Your task to perform on an android device: open app "Adobe Acrobat Reader" (install if not already installed) and enter user name: "nondescriptly@inbox.com" and password: "negating" Image 0: 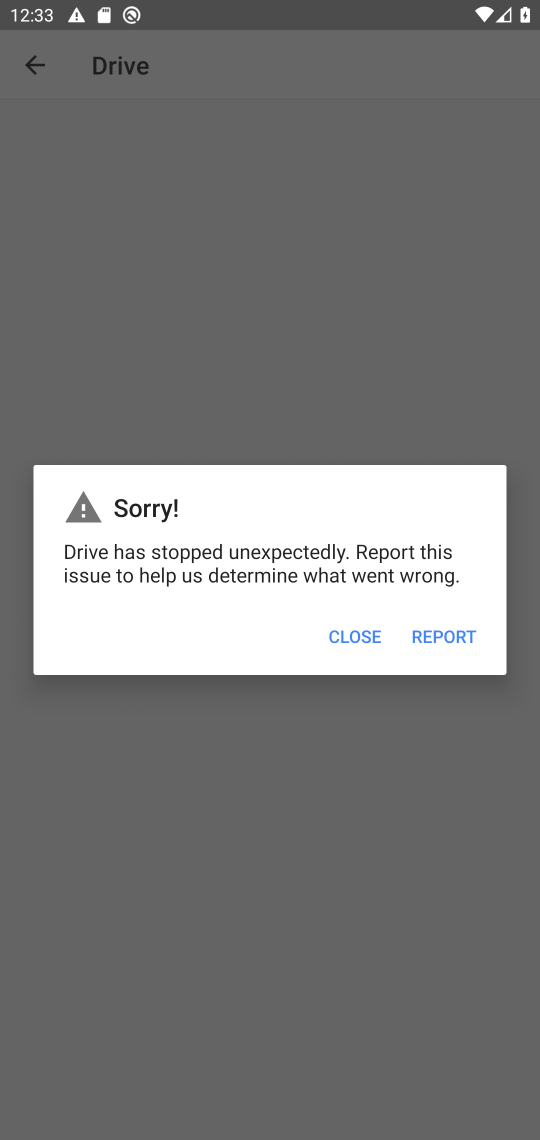
Step 0: press home button
Your task to perform on an android device: open app "Adobe Acrobat Reader" (install if not already installed) and enter user name: "nondescriptly@inbox.com" and password: "negating" Image 1: 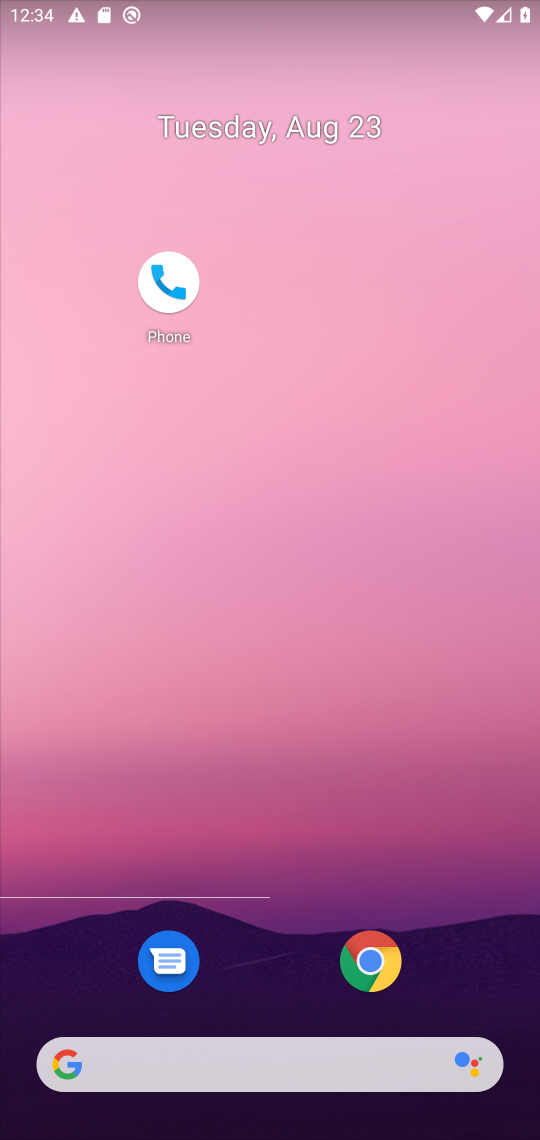
Step 1: drag from (247, 1000) to (404, 14)
Your task to perform on an android device: open app "Adobe Acrobat Reader" (install if not already installed) and enter user name: "nondescriptly@inbox.com" and password: "negating" Image 2: 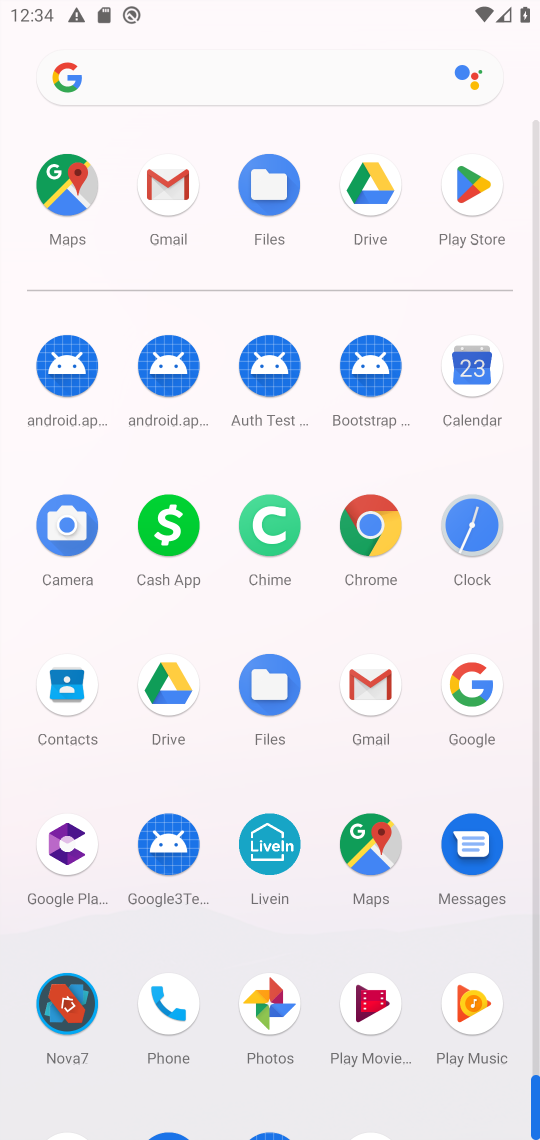
Step 2: click (465, 192)
Your task to perform on an android device: open app "Adobe Acrobat Reader" (install if not already installed) and enter user name: "nondescriptly@inbox.com" and password: "negating" Image 3: 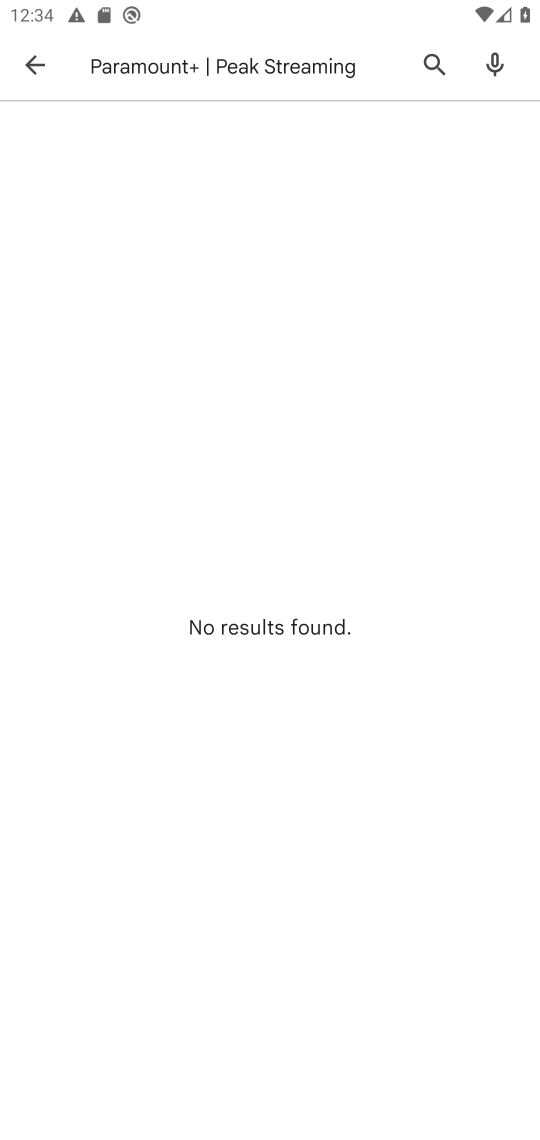
Step 3: click (455, 59)
Your task to perform on an android device: open app "Adobe Acrobat Reader" (install if not already installed) and enter user name: "nondescriptly@inbox.com" and password: "negating" Image 4: 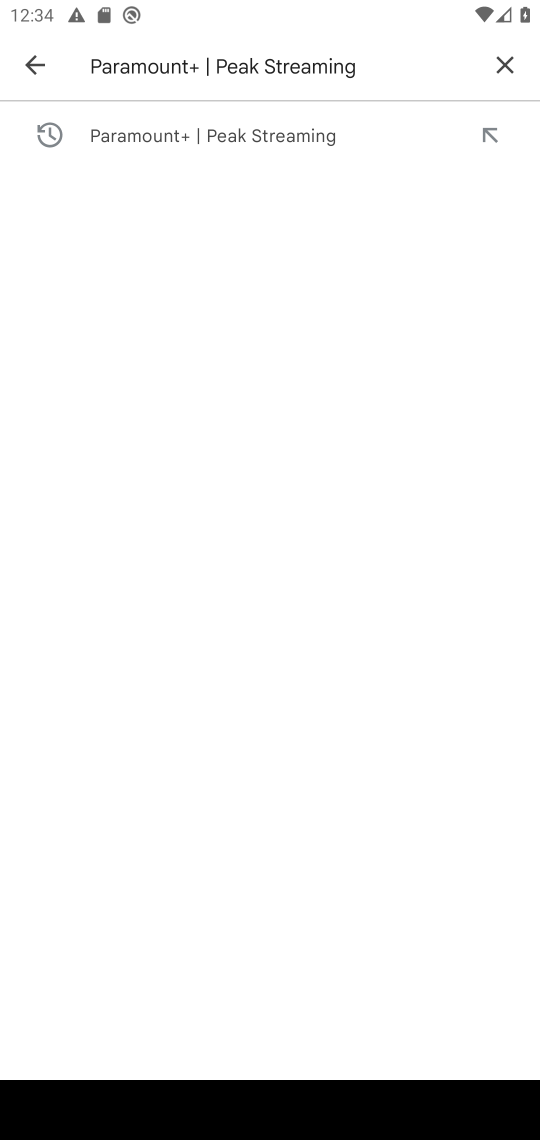
Step 4: click (493, 60)
Your task to perform on an android device: open app "Adobe Acrobat Reader" (install if not already installed) and enter user name: "nondescriptly@inbox.com" and password: "negating" Image 5: 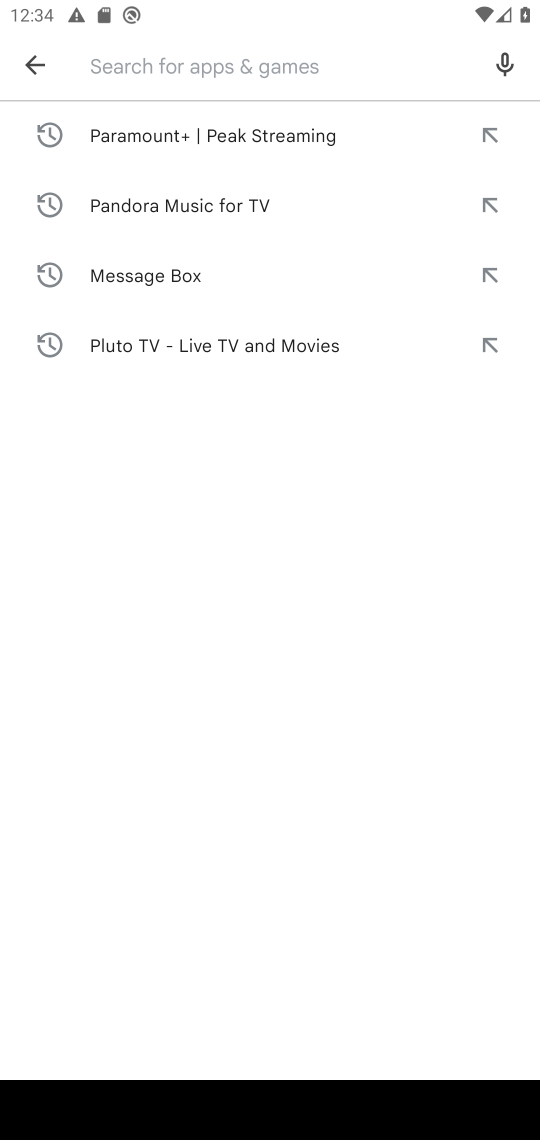
Step 5: type "adobe acrobat"
Your task to perform on an android device: open app "Adobe Acrobat Reader" (install if not already installed) and enter user name: "nondescriptly@inbox.com" and password: "negating" Image 6: 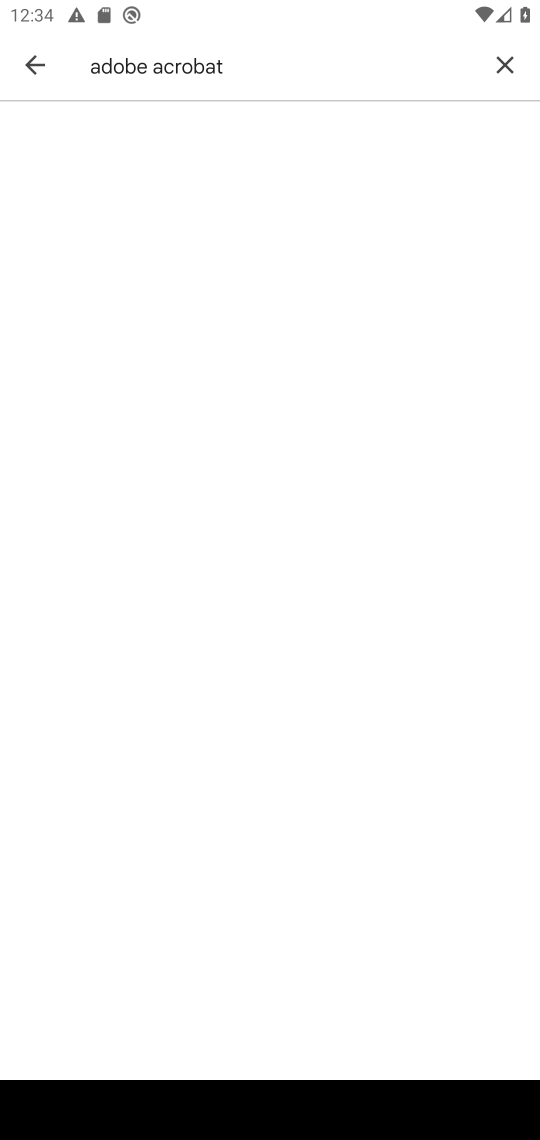
Step 6: task complete